Your task to perform on an android device: Show me popular games on the Play Store Image 0: 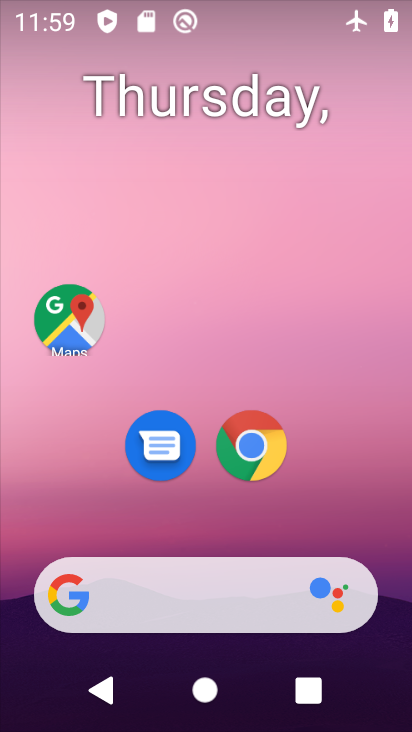
Step 0: drag from (369, 535) to (340, 48)
Your task to perform on an android device: Show me popular games on the Play Store Image 1: 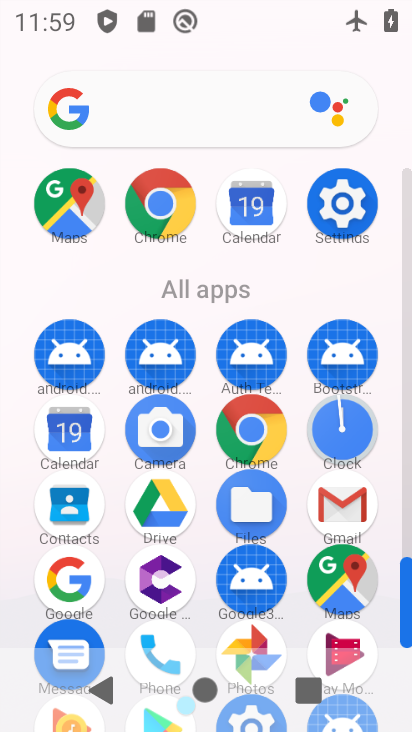
Step 1: click (408, 654)
Your task to perform on an android device: Show me popular games on the Play Store Image 2: 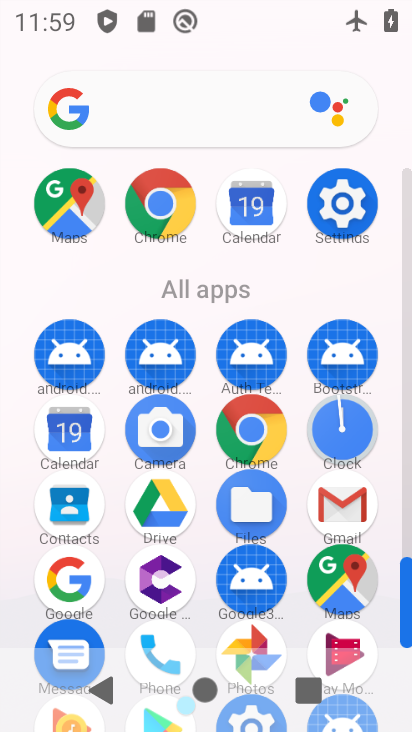
Step 2: drag from (408, 619) to (411, 675)
Your task to perform on an android device: Show me popular games on the Play Store Image 3: 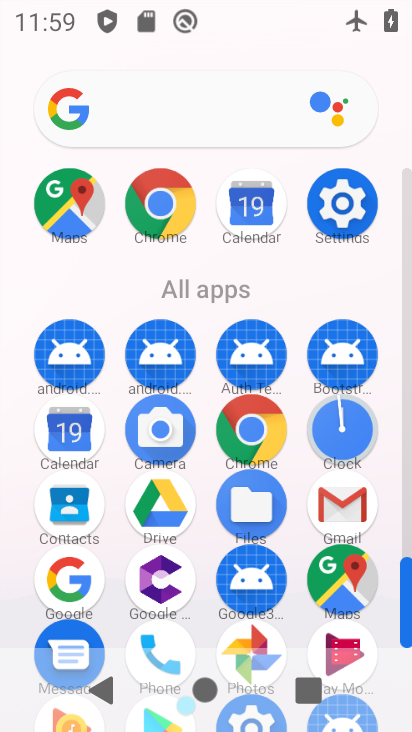
Step 3: drag from (388, 614) to (398, 337)
Your task to perform on an android device: Show me popular games on the Play Store Image 4: 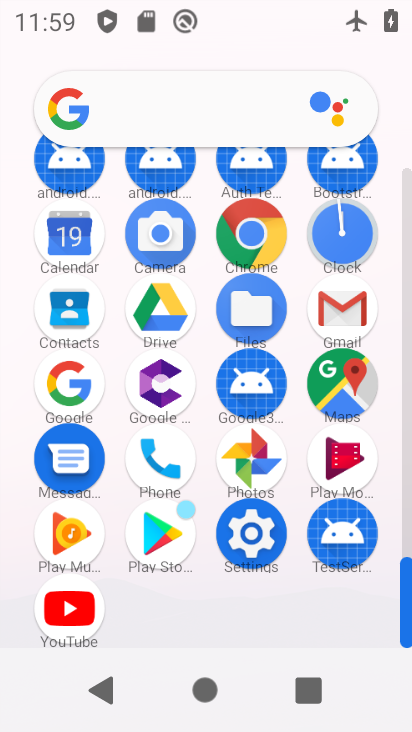
Step 4: click (169, 525)
Your task to perform on an android device: Show me popular games on the Play Store Image 5: 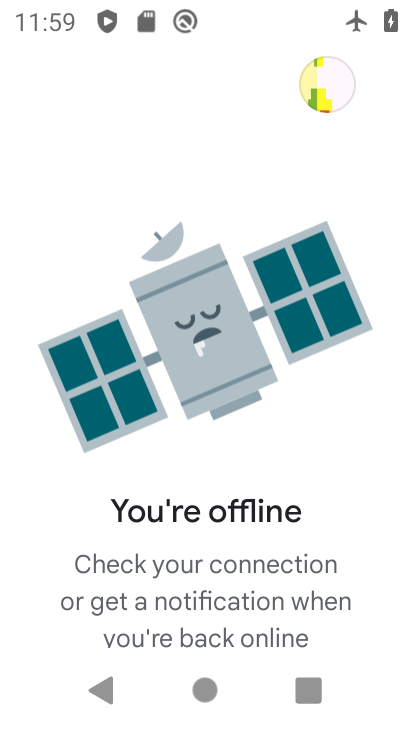
Step 5: task complete